Your task to perform on an android device: change notification settings in the gmail app Image 0: 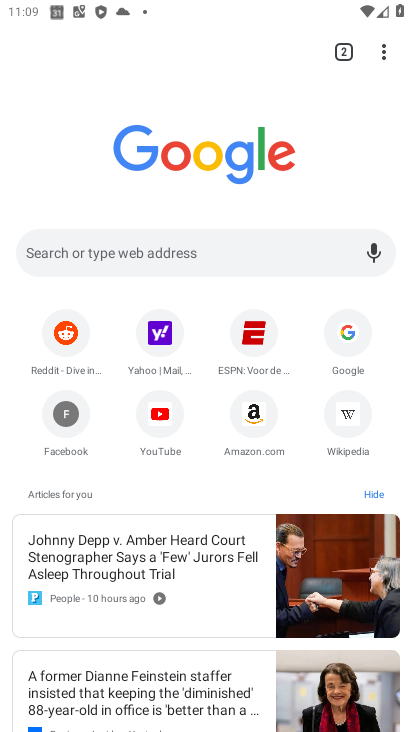
Step 0: press home button
Your task to perform on an android device: change notification settings in the gmail app Image 1: 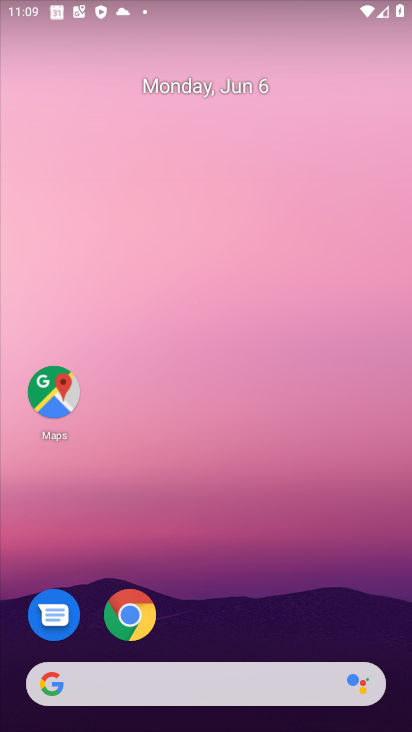
Step 1: drag from (294, 616) to (144, 31)
Your task to perform on an android device: change notification settings in the gmail app Image 2: 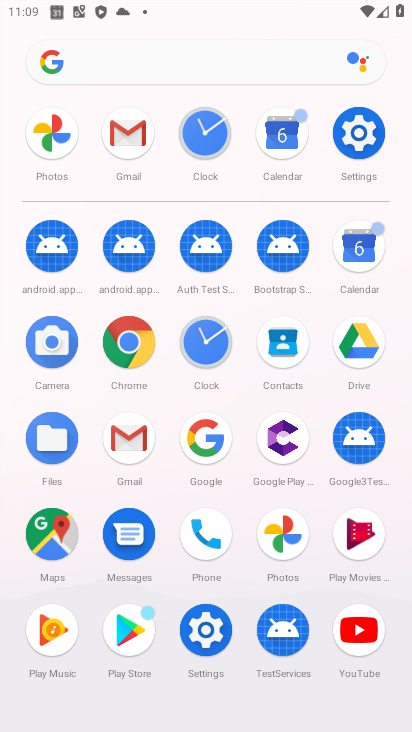
Step 2: click (152, 159)
Your task to perform on an android device: change notification settings in the gmail app Image 3: 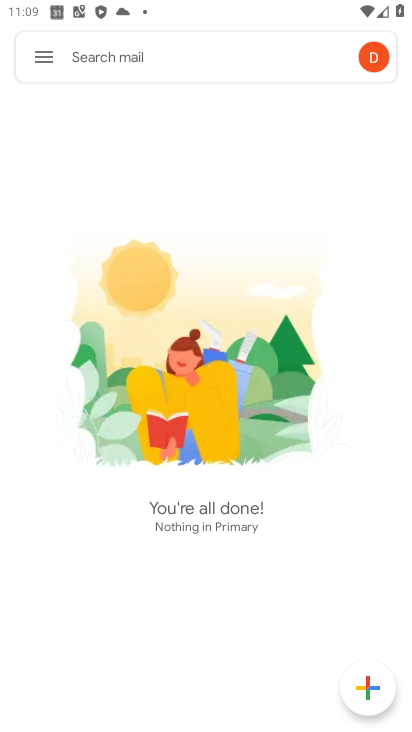
Step 3: click (25, 73)
Your task to perform on an android device: change notification settings in the gmail app Image 4: 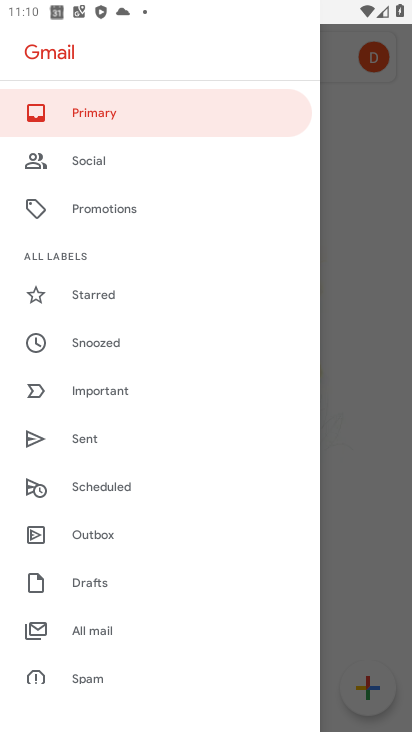
Step 4: task complete